Your task to perform on an android device: Open Wikipedia Image 0: 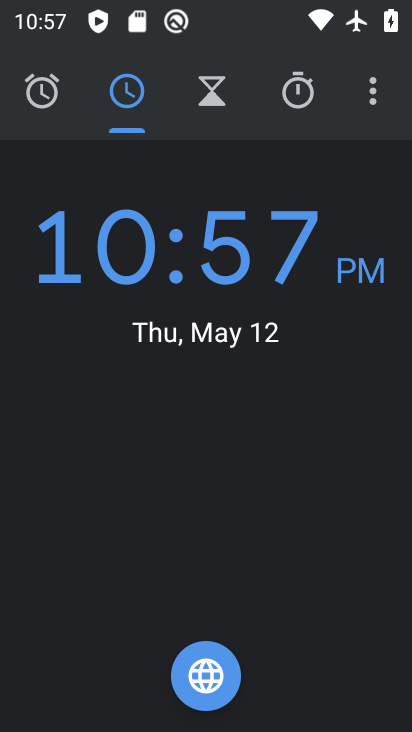
Step 0: press home button
Your task to perform on an android device: Open Wikipedia Image 1: 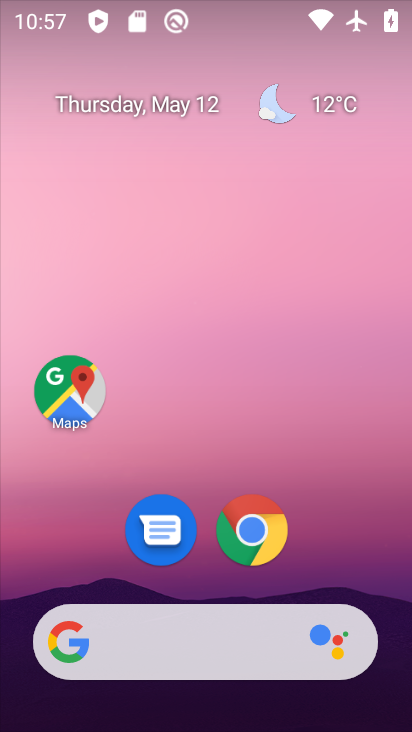
Step 1: click (257, 529)
Your task to perform on an android device: Open Wikipedia Image 2: 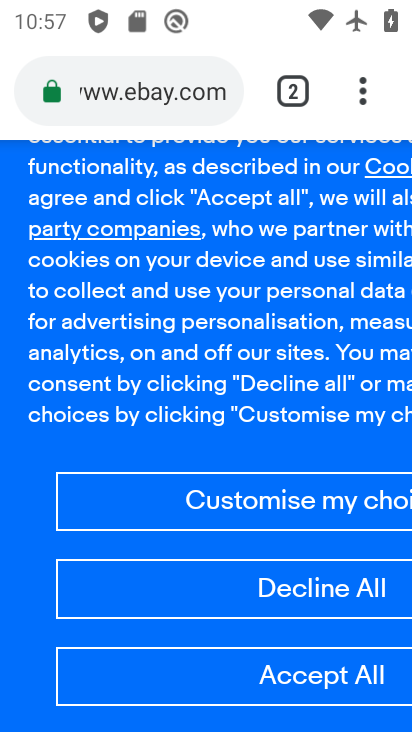
Step 2: drag from (364, 102) to (214, 176)
Your task to perform on an android device: Open Wikipedia Image 3: 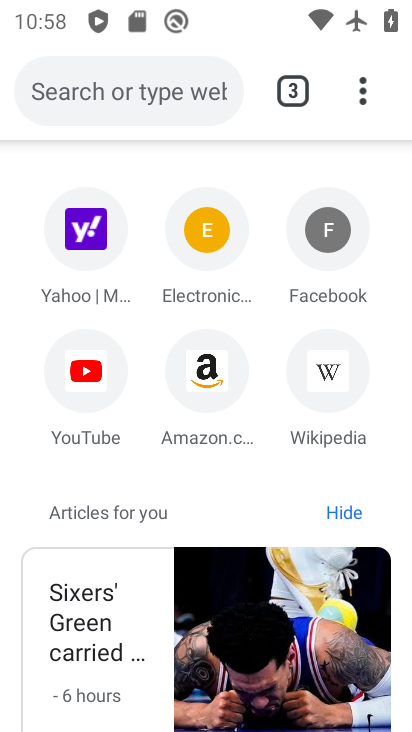
Step 3: click (339, 375)
Your task to perform on an android device: Open Wikipedia Image 4: 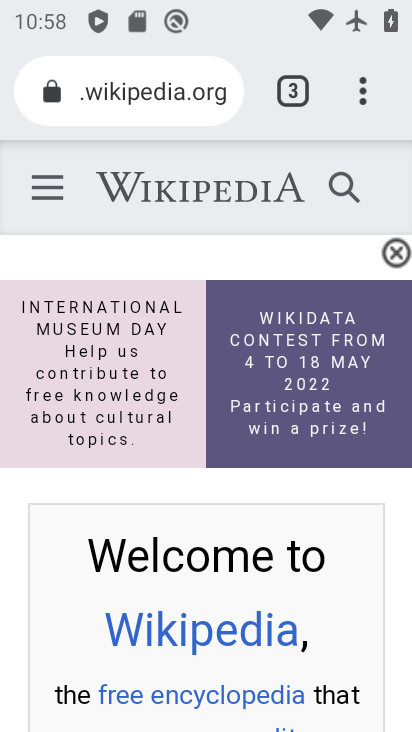
Step 4: task complete